Your task to perform on an android device: turn vacation reply on in the gmail app Image 0: 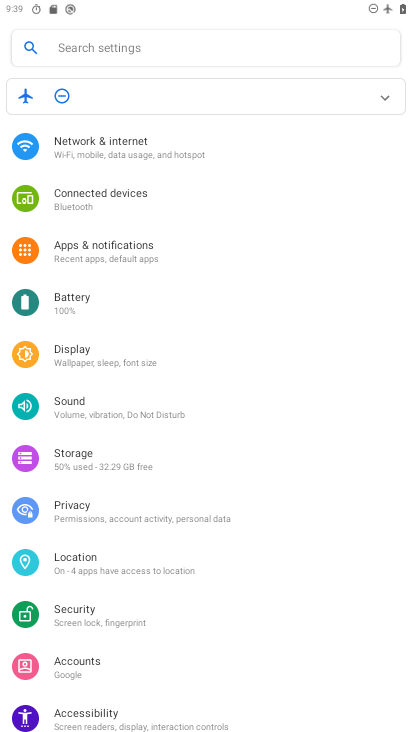
Step 0: press home button
Your task to perform on an android device: turn vacation reply on in the gmail app Image 1: 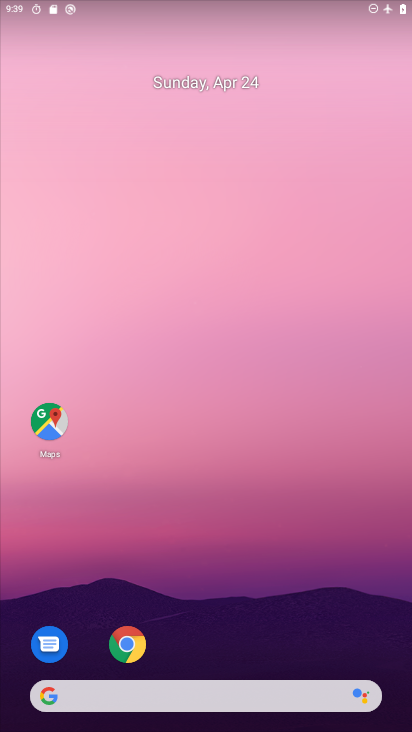
Step 1: drag from (202, 669) to (100, 25)
Your task to perform on an android device: turn vacation reply on in the gmail app Image 2: 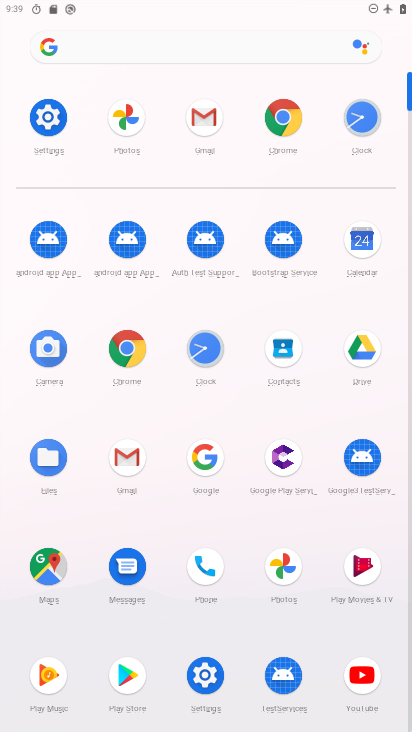
Step 2: click (120, 454)
Your task to perform on an android device: turn vacation reply on in the gmail app Image 3: 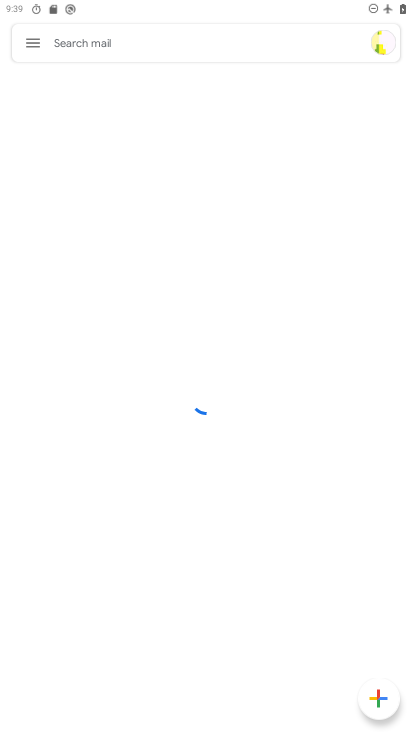
Step 3: click (24, 41)
Your task to perform on an android device: turn vacation reply on in the gmail app Image 4: 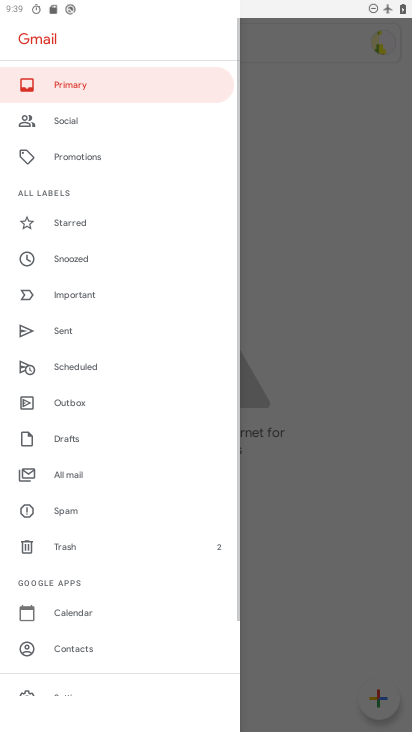
Step 4: drag from (98, 656) to (60, 426)
Your task to perform on an android device: turn vacation reply on in the gmail app Image 5: 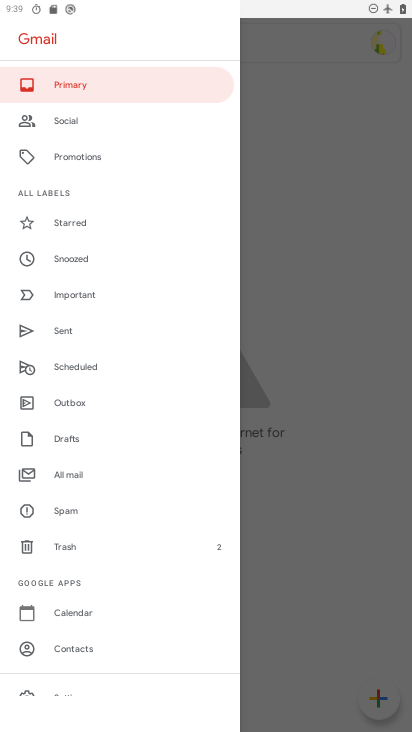
Step 5: drag from (61, 659) to (58, 349)
Your task to perform on an android device: turn vacation reply on in the gmail app Image 6: 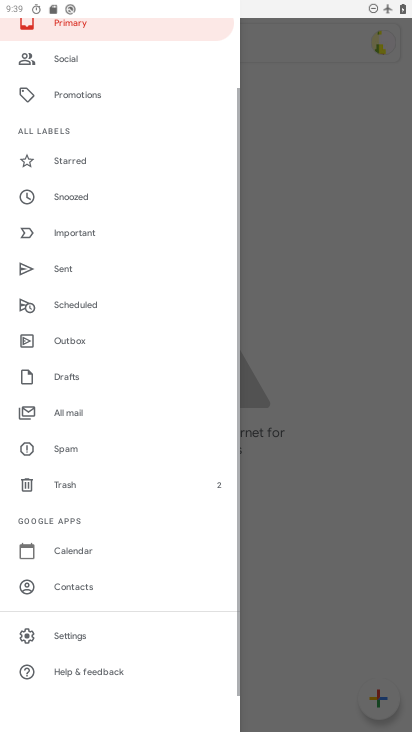
Step 6: click (60, 628)
Your task to perform on an android device: turn vacation reply on in the gmail app Image 7: 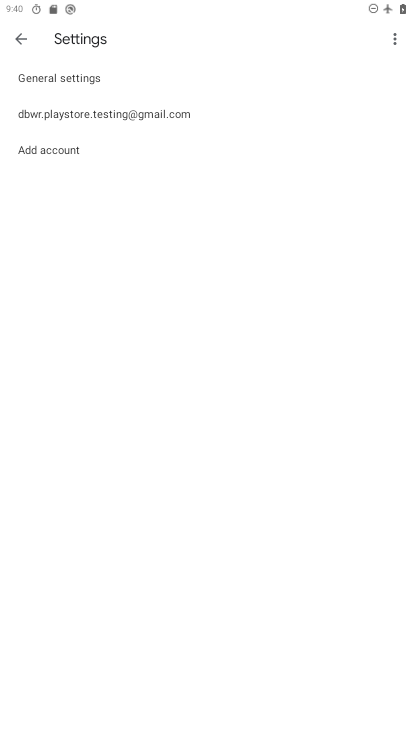
Step 7: click (28, 113)
Your task to perform on an android device: turn vacation reply on in the gmail app Image 8: 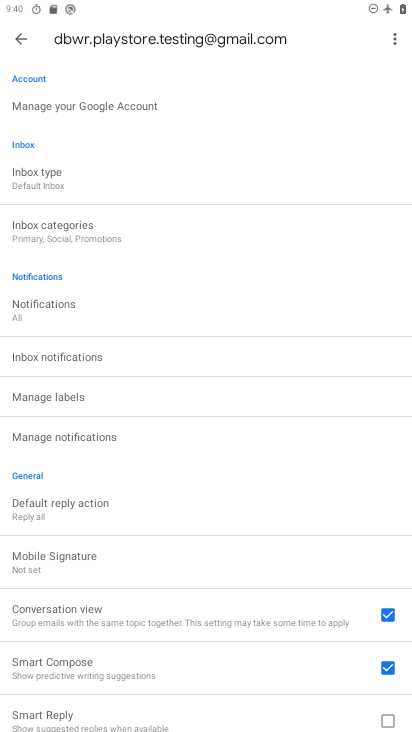
Step 8: drag from (161, 676) to (106, 325)
Your task to perform on an android device: turn vacation reply on in the gmail app Image 9: 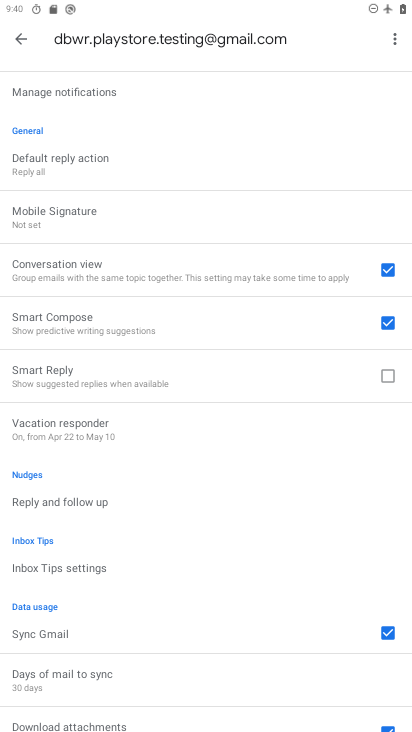
Step 9: click (43, 425)
Your task to perform on an android device: turn vacation reply on in the gmail app Image 10: 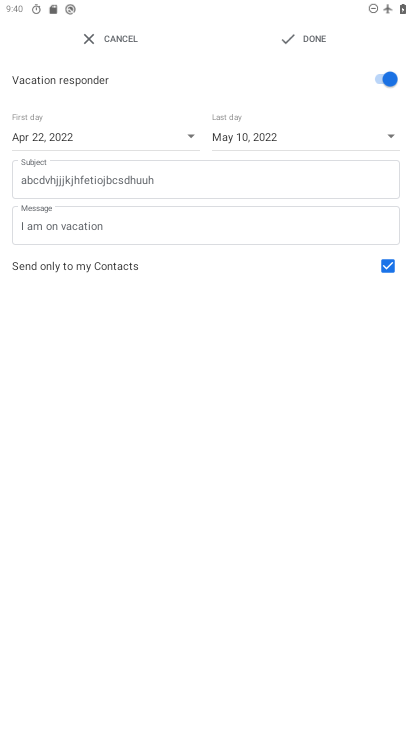
Step 10: click (295, 41)
Your task to perform on an android device: turn vacation reply on in the gmail app Image 11: 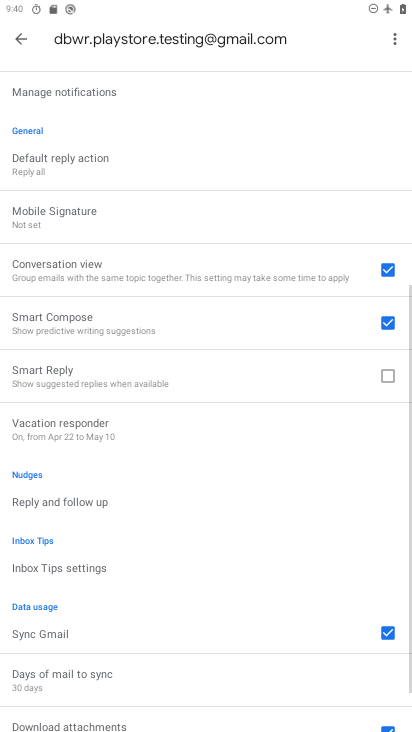
Step 11: task complete